Your task to perform on an android device: Show me popular videos on Youtube Image 0: 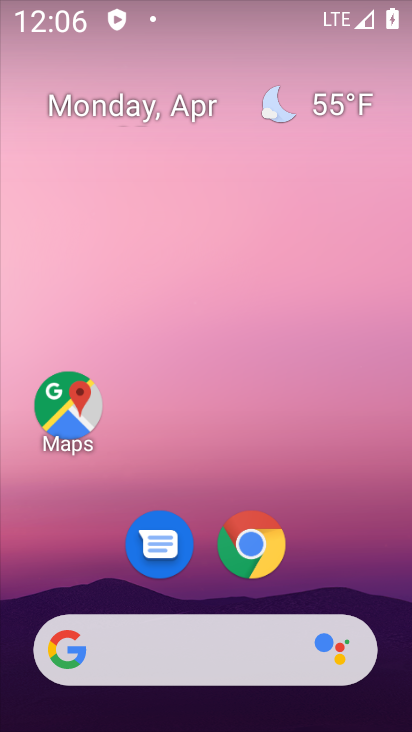
Step 0: drag from (316, 562) to (131, 80)
Your task to perform on an android device: Show me popular videos on Youtube Image 1: 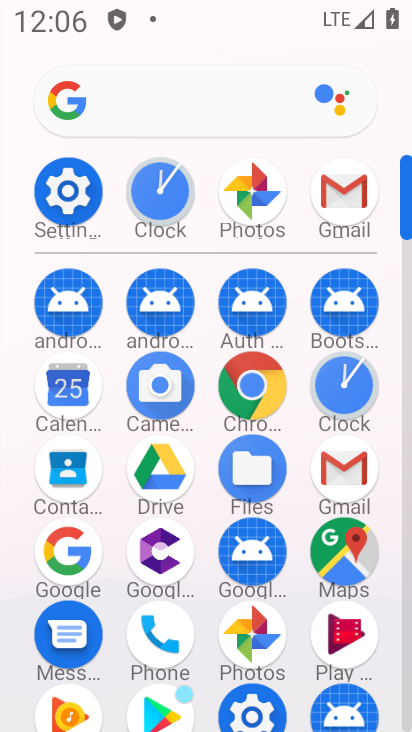
Step 1: drag from (210, 638) to (201, 190)
Your task to perform on an android device: Show me popular videos on Youtube Image 2: 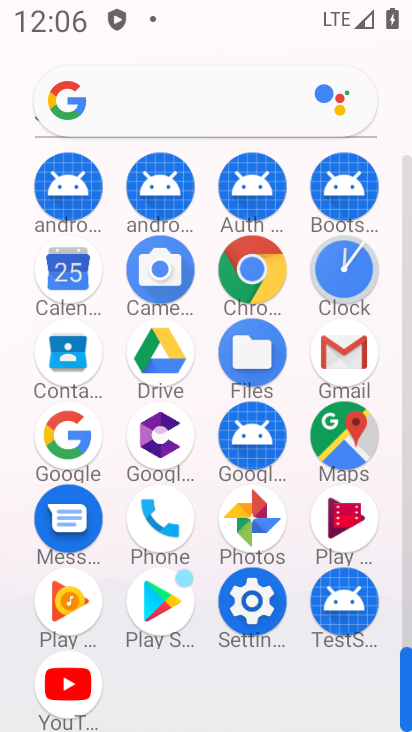
Step 2: click (70, 660)
Your task to perform on an android device: Show me popular videos on Youtube Image 3: 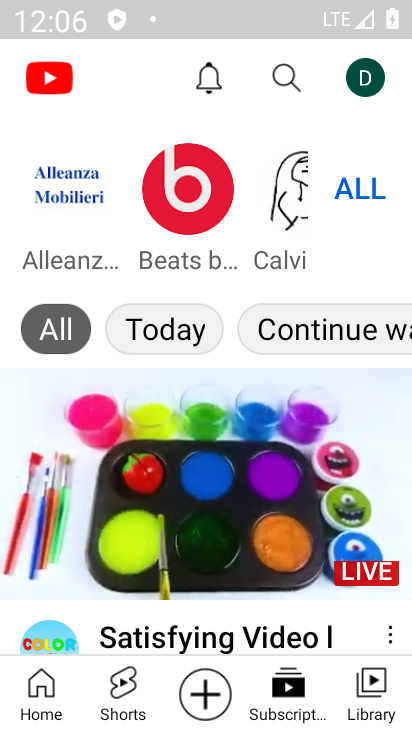
Step 3: click (55, 695)
Your task to perform on an android device: Show me popular videos on Youtube Image 4: 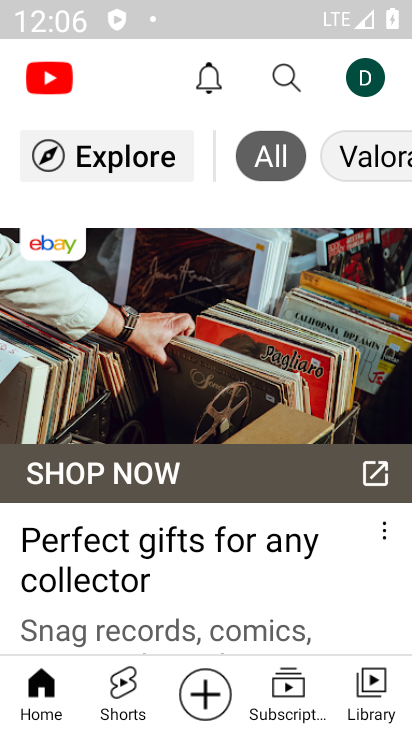
Step 4: click (99, 156)
Your task to perform on an android device: Show me popular videos on Youtube Image 5: 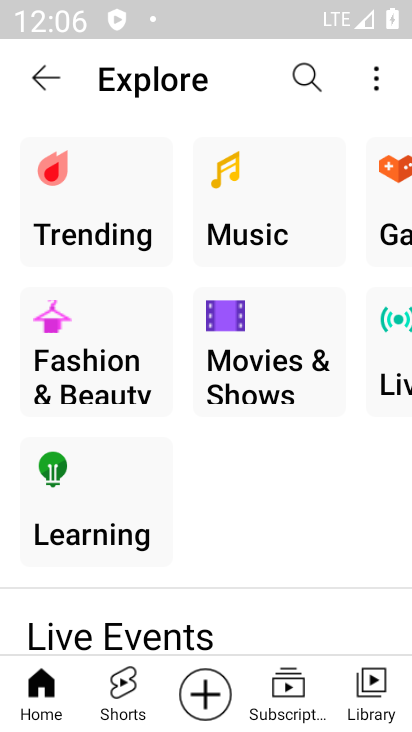
Step 5: click (69, 207)
Your task to perform on an android device: Show me popular videos on Youtube Image 6: 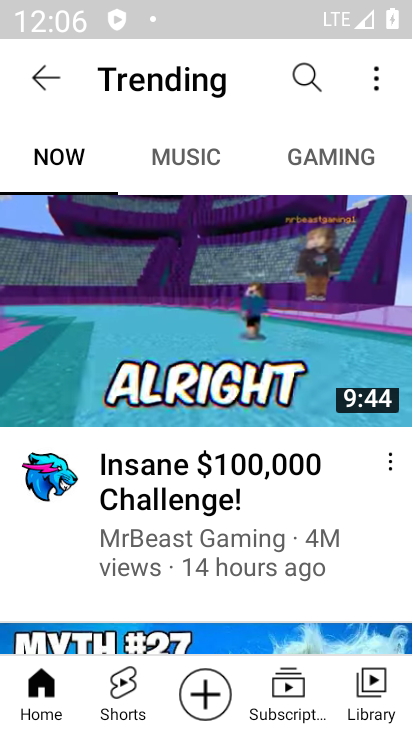
Step 6: click (233, 342)
Your task to perform on an android device: Show me popular videos on Youtube Image 7: 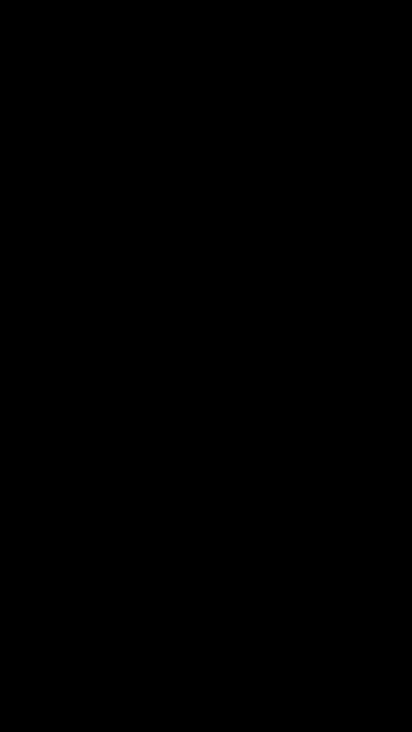
Step 7: task complete